Your task to perform on an android device: delete browsing data in the chrome app Image 0: 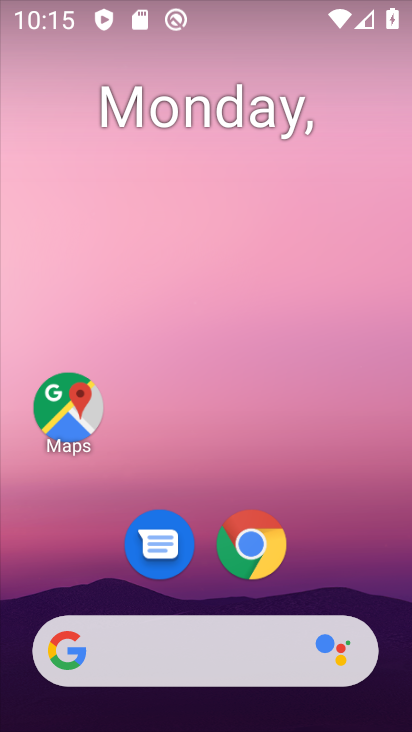
Step 0: click (245, 555)
Your task to perform on an android device: delete browsing data in the chrome app Image 1: 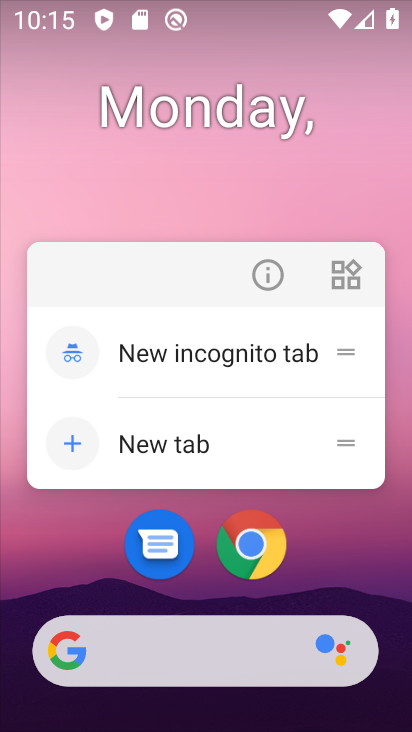
Step 1: click (245, 548)
Your task to perform on an android device: delete browsing data in the chrome app Image 2: 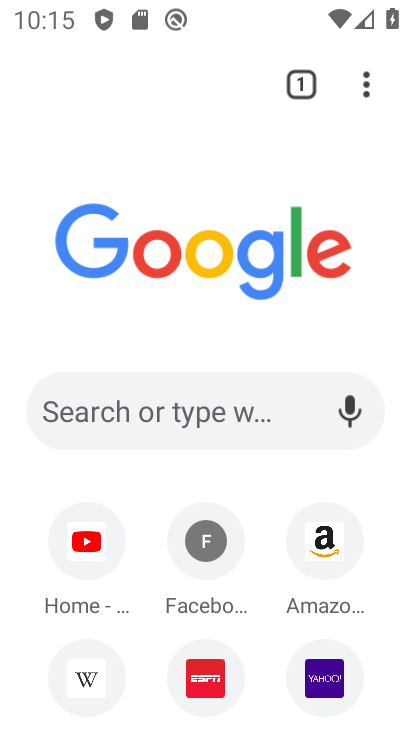
Step 2: drag from (365, 91) to (227, 611)
Your task to perform on an android device: delete browsing data in the chrome app Image 3: 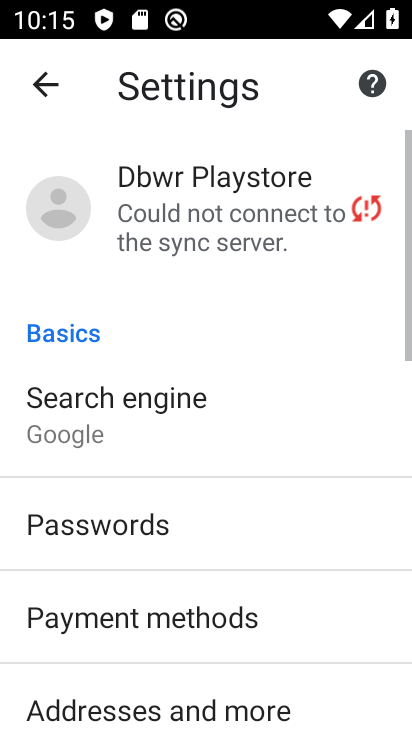
Step 3: drag from (158, 661) to (253, 291)
Your task to perform on an android device: delete browsing data in the chrome app Image 4: 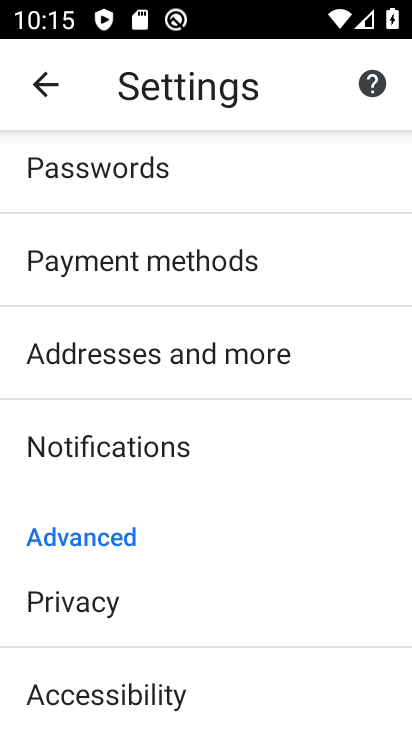
Step 4: drag from (162, 659) to (231, 399)
Your task to perform on an android device: delete browsing data in the chrome app Image 5: 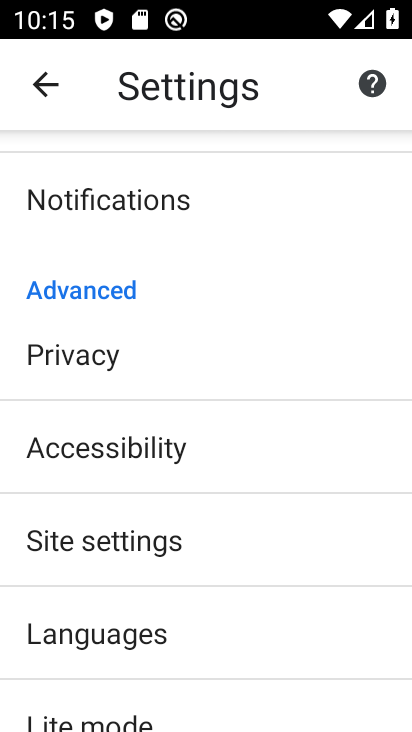
Step 5: click (109, 691)
Your task to perform on an android device: delete browsing data in the chrome app Image 6: 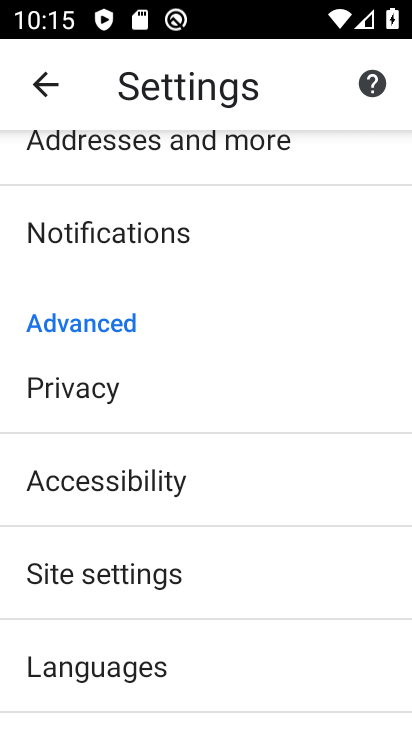
Step 6: click (124, 407)
Your task to perform on an android device: delete browsing data in the chrome app Image 7: 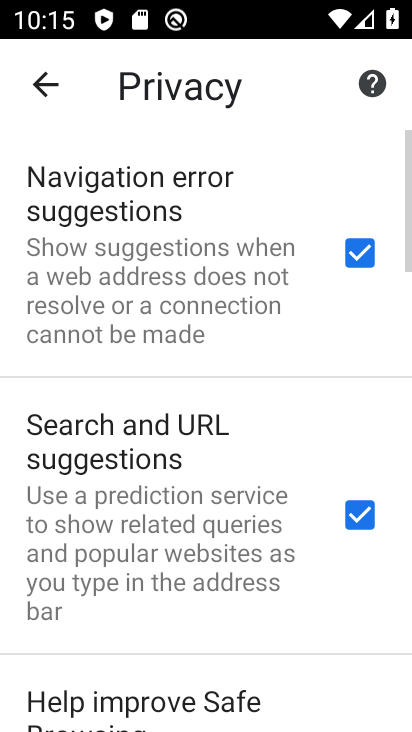
Step 7: drag from (160, 646) to (263, 80)
Your task to perform on an android device: delete browsing data in the chrome app Image 8: 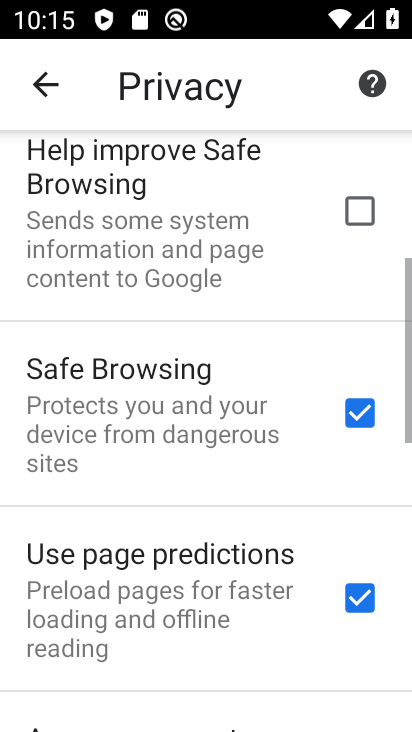
Step 8: drag from (197, 668) to (276, 274)
Your task to perform on an android device: delete browsing data in the chrome app Image 9: 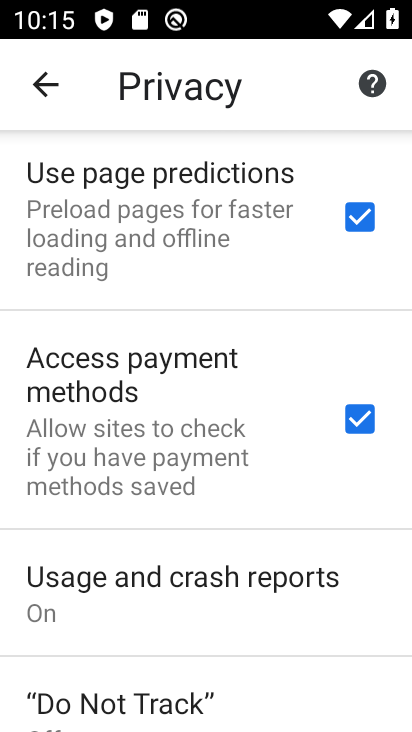
Step 9: drag from (230, 684) to (326, 285)
Your task to perform on an android device: delete browsing data in the chrome app Image 10: 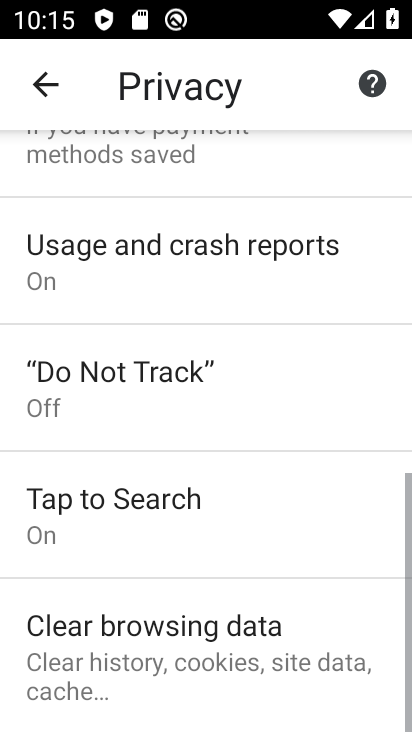
Step 10: click (265, 673)
Your task to perform on an android device: delete browsing data in the chrome app Image 11: 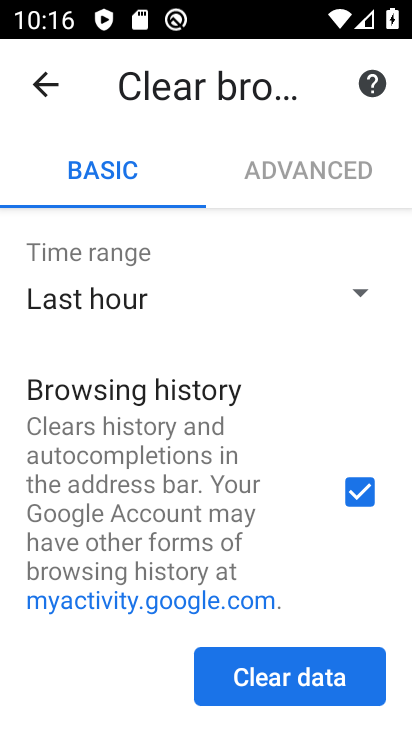
Step 11: drag from (133, 560) to (212, 146)
Your task to perform on an android device: delete browsing data in the chrome app Image 12: 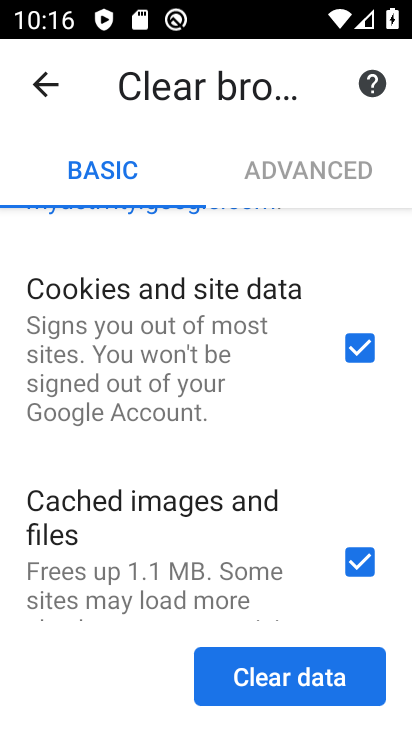
Step 12: click (301, 688)
Your task to perform on an android device: delete browsing data in the chrome app Image 13: 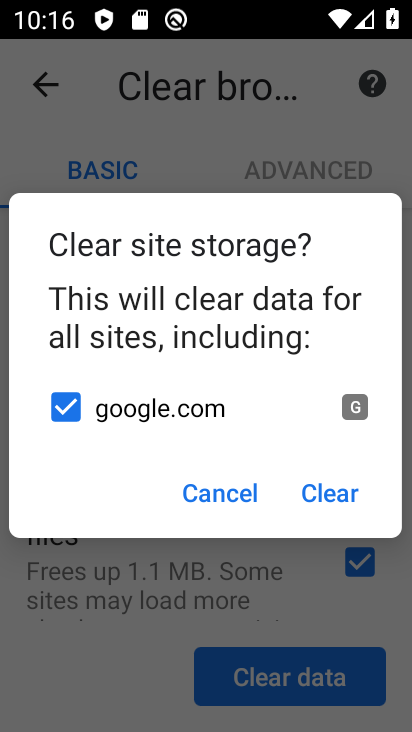
Step 13: click (330, 491)
Your task to perform on an android device: delete browsing data in the chrome app Image 14: 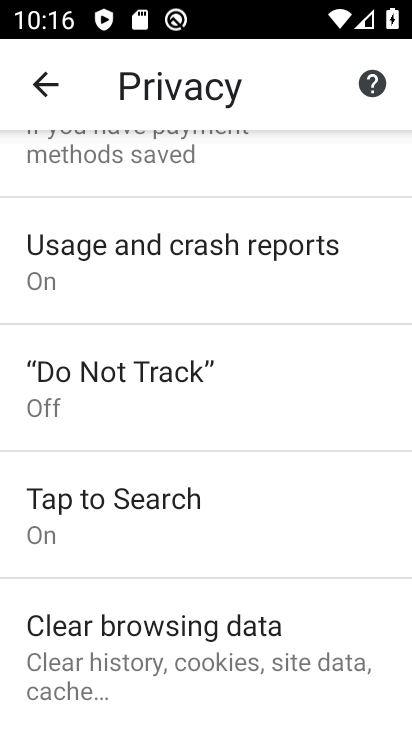
Step 14: task complete